Your task to perform on an android device: Go to privacy settings Image 0: 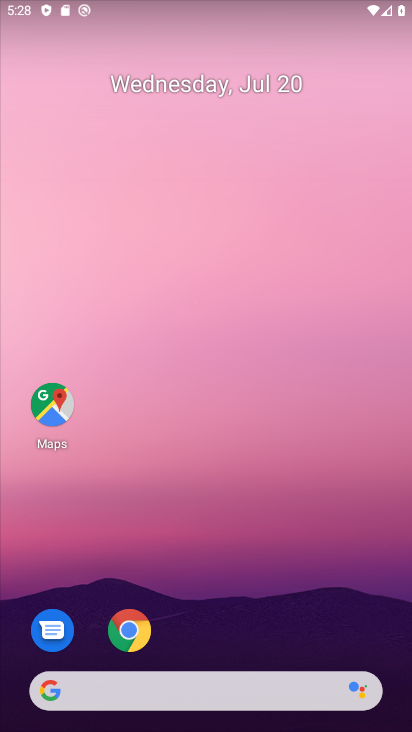
Step 0: drag from (229, 688) to (370, 43)
Your task to perform on an android device: Go to privacy settings Image 1: 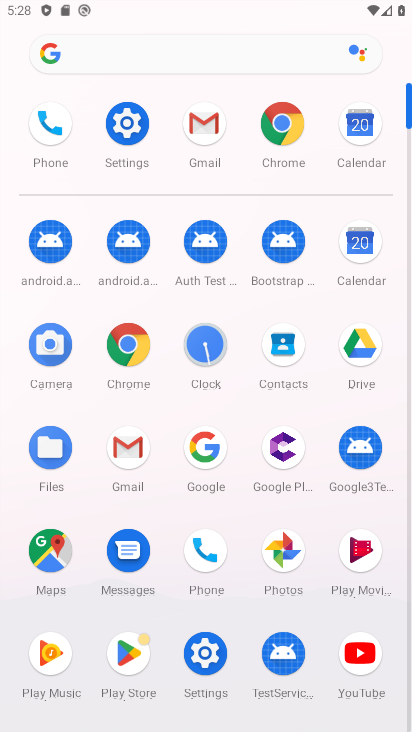
Step 1: click (145, 118)
Your task to perform on an android device: Go to privacy settings Image 2: 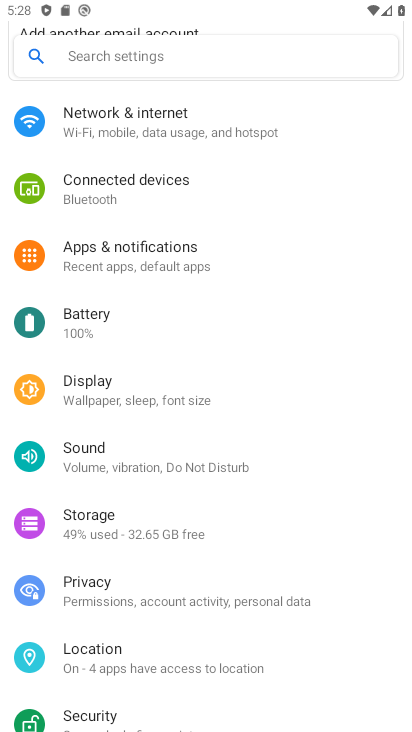
Step 2: click (100, 591)
Your task to perform on an android device: Go to privacy settings Image 3: 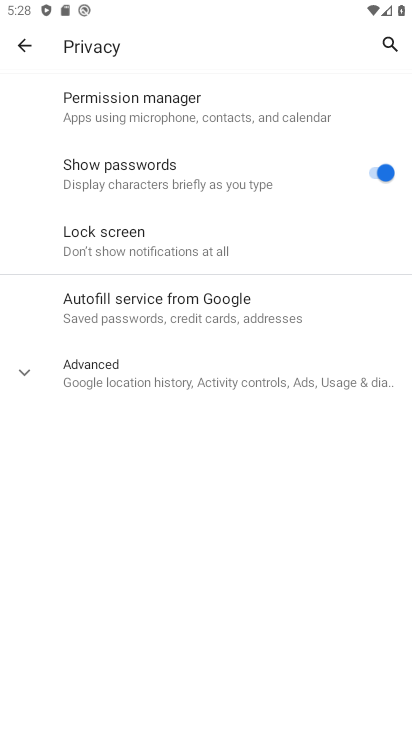
Step 3: task complete